Your task to perform on an android device: turn notification dots off Image 0: 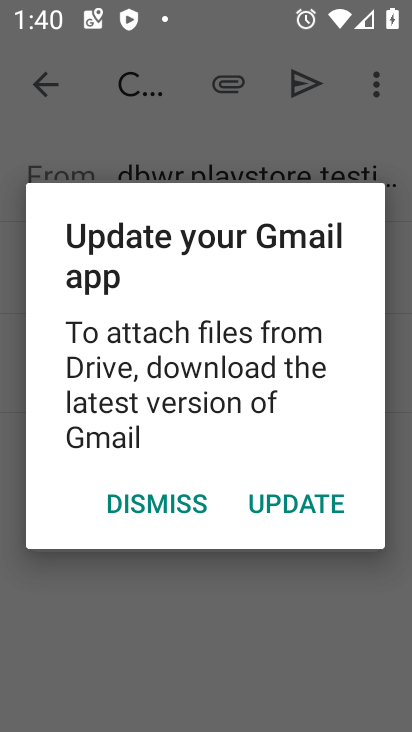
Step 0: press home button
Your task to perform on an android device: turn notification dots off Image 1: 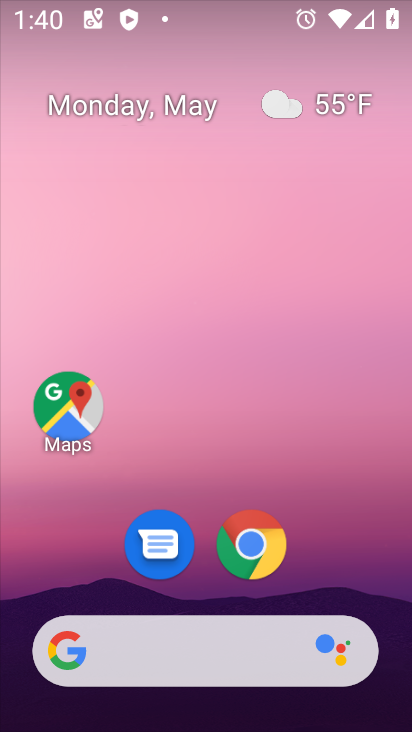
Step 1: drag from (396, 629) to (296, 19)
Your task to perform on an android device: turn notification dots off Image 2: 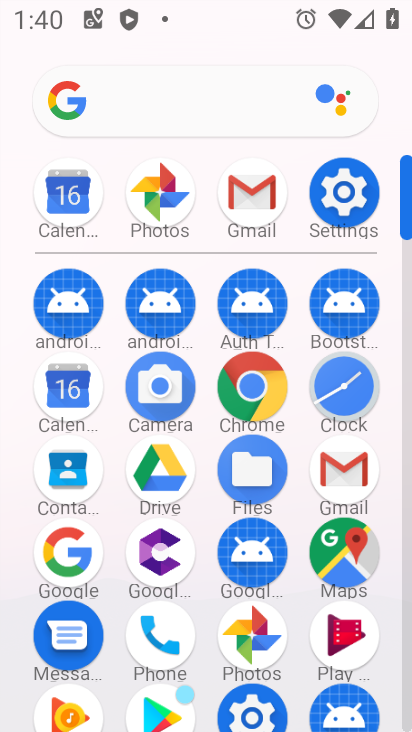
Step 2: click (407, 725)
Your task to perform on an android device: turn notification dots off Image 3: 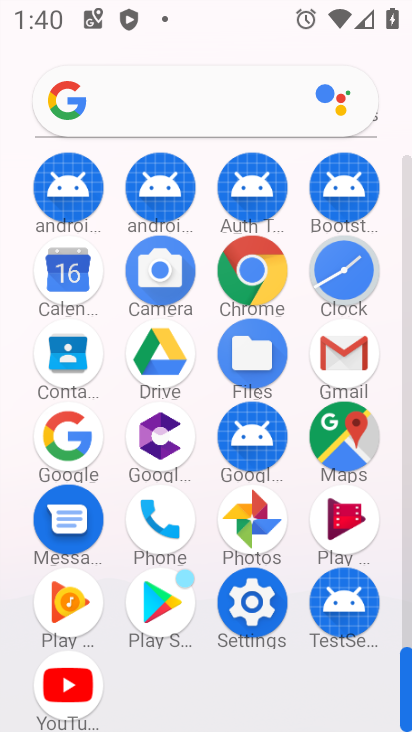
Step 3: click (253, 600)
Your task to perform on an android device: turn notification dots off Image 4: 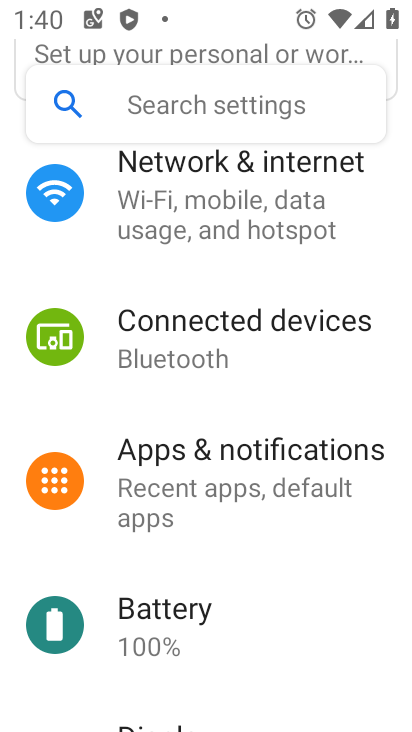
Step 4: click (186, 484)
Your task to perform on an android device: turn notification dots off Image 5: 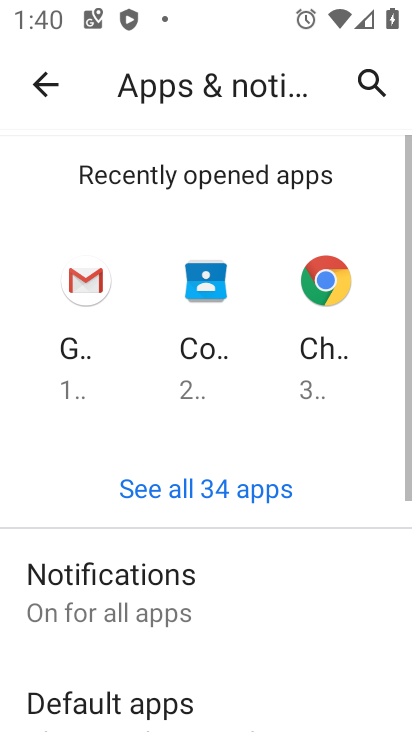
Step 5: click (126, 582)
Your task to perform on an android device: turn notification dots off Image 6: 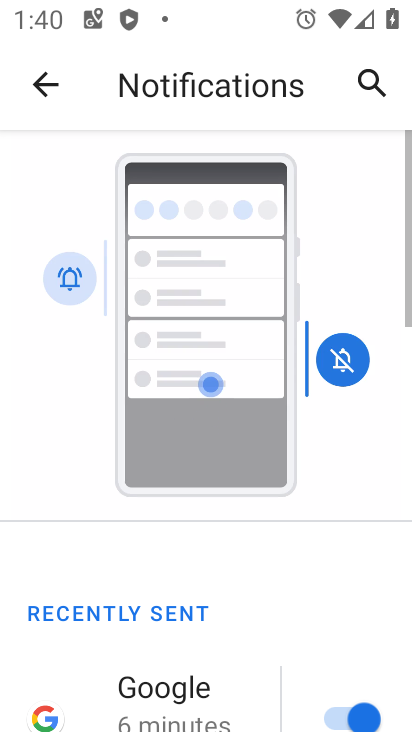
Step 6: drag from (277, 677) to (226, 145)
Your task to perform on an android device: turn notification dots off Image 7: 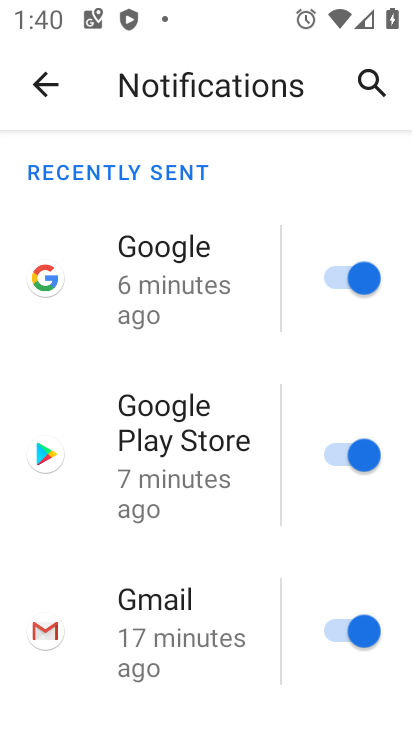
Step 7: drag from (286, 688) to (235, 0)
Your task to perform on an android device: turn notification dots off Image 8: 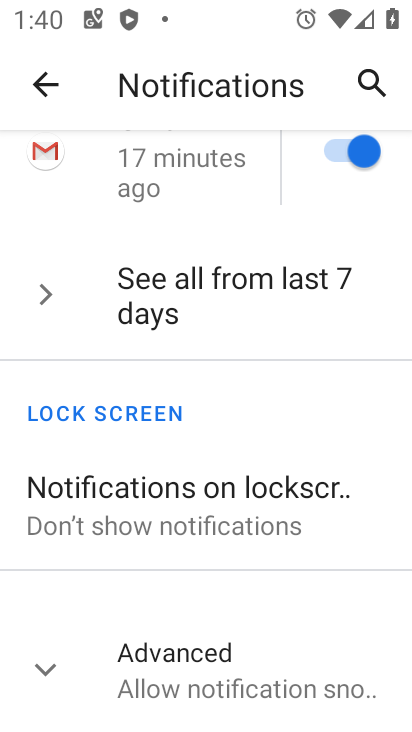
Step 8: click (39, 682)
Your task to perform on an android device: turn notification dots off Image 9: 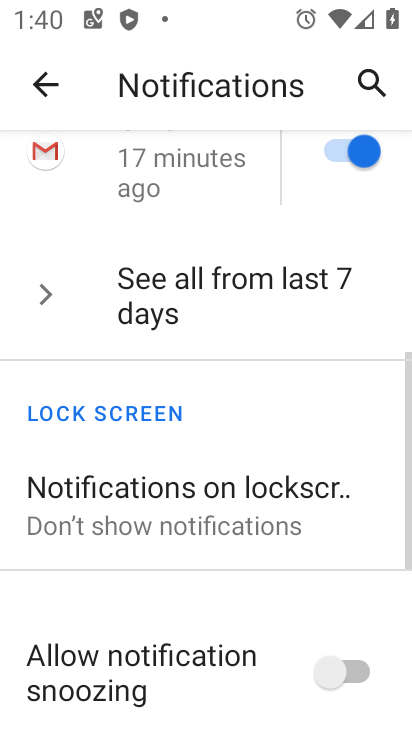
Step 9: drag from (283, 687) to (279, 166)
Your task to perform on an android device: turn notification dots off Image 10: 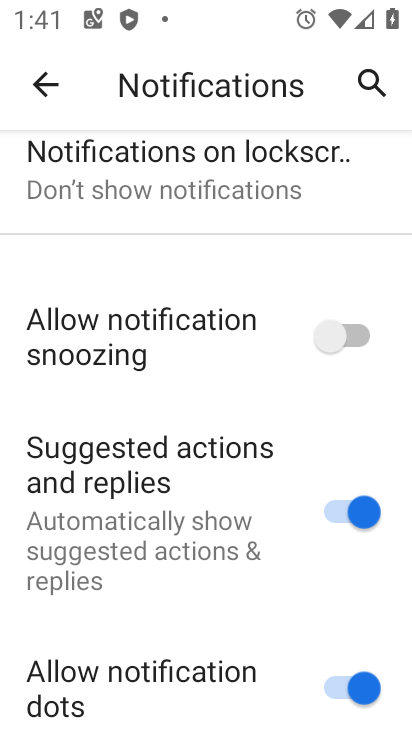
Step 10: drag from (270, 598) to (254, 185)
Your task to perform on an android device: turn notification dots off Image 11: 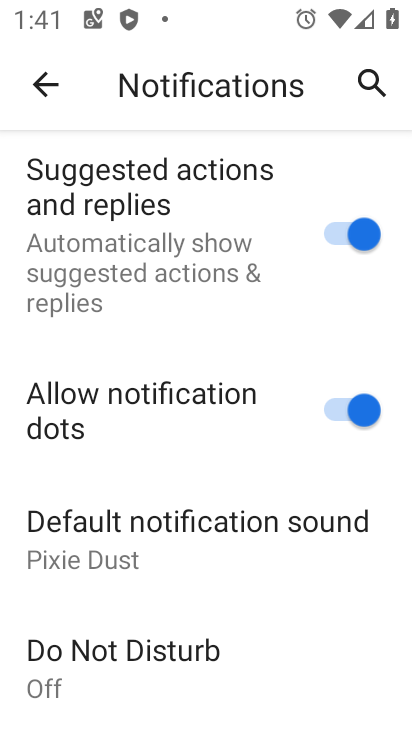
Step 11: click (334, 405)
Your task to perform on an android device: turn notification dots off Image 12: 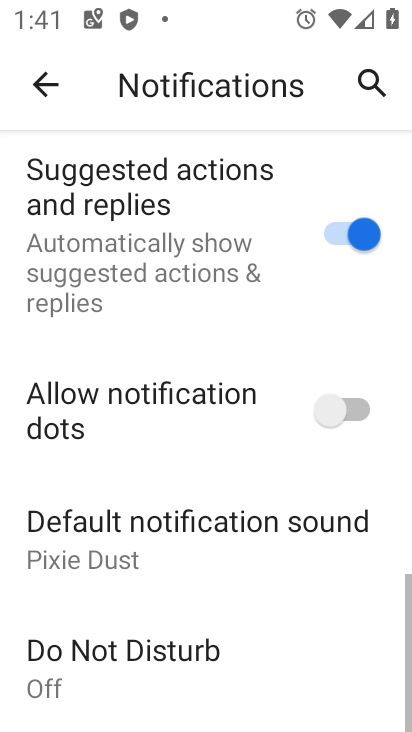
Step 12: task complete